Your task to perform on an android device: Go to location settings Image 0: 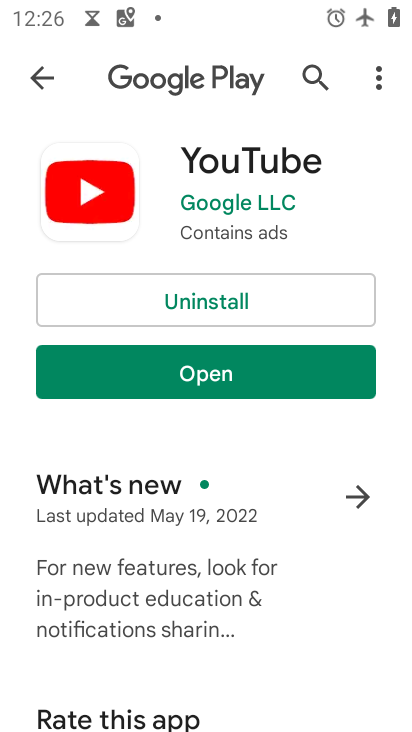
Step 0: press home button
Your task to perform on an android device: Go to location settings Image 1: 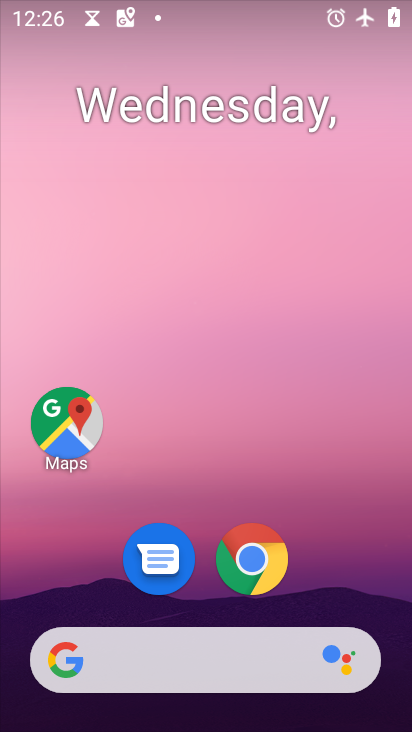
Step 1: drag from (388, 596) to (412, 159)
Your task to perform on an android device: Go to location settings Image 2: 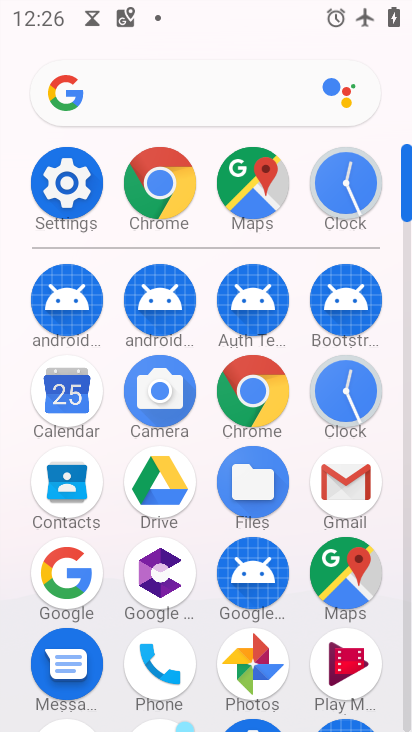
Step 2: click (69, 188)
Your task to perform on an android device: Go to location settings Image 3: 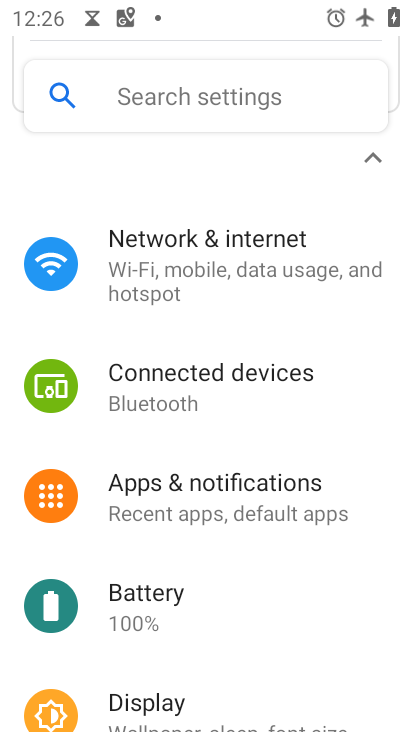
Step 3: drag from (196, 627) to (233, 106)
Your task to perform on an android device: Go to location settings Image 4: 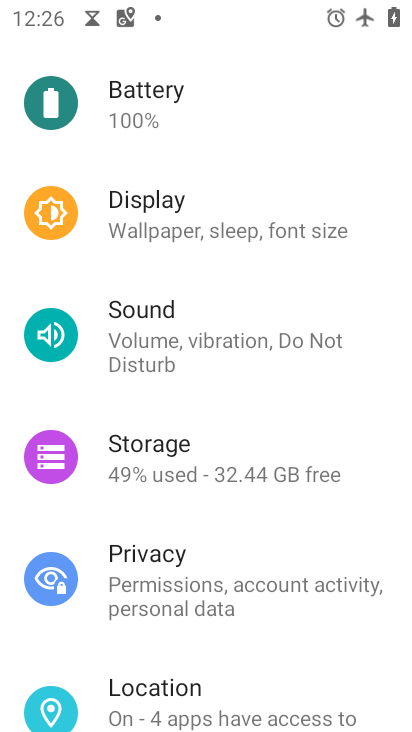
Step 4: drag from (275, 636) to (246, 177)
Your task to perform on an android device: Go to location settings Image 5: 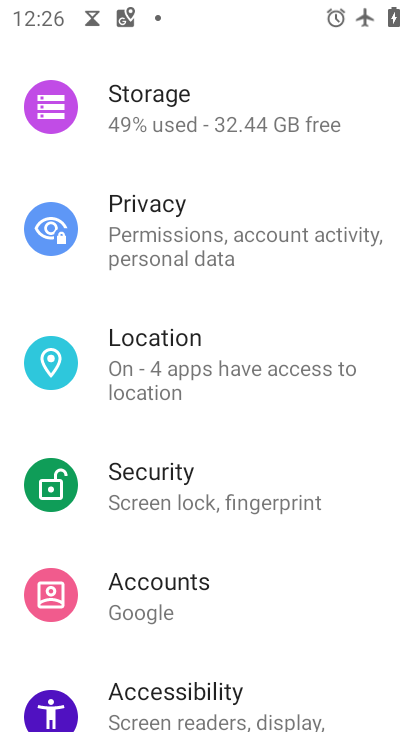
Step 5: click (194, 374)
Your task to perform on an android device: Go to location settings Image 6: 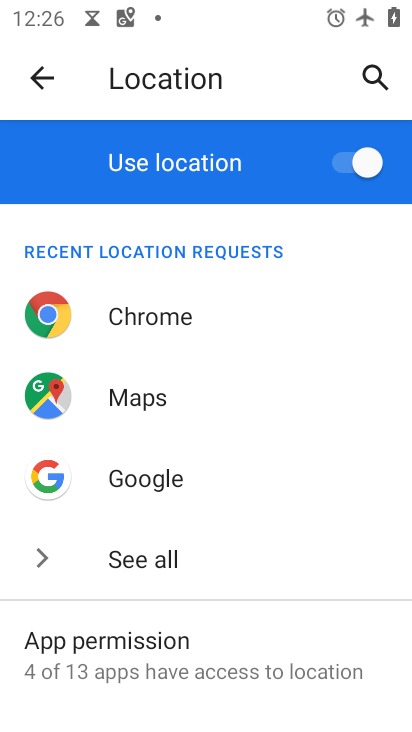
Step 6: task complete